Your task to perform on an android device: Open Chrome and go to the settings page Image 0: 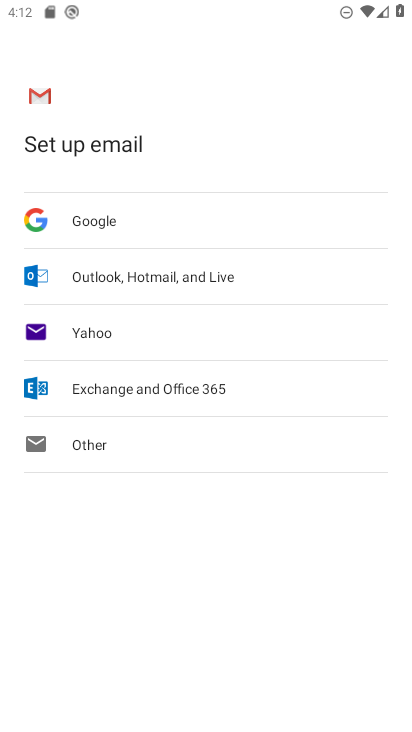
Step 0: task complete